Your task to perform on an android device: turn notification dots off Image 0: 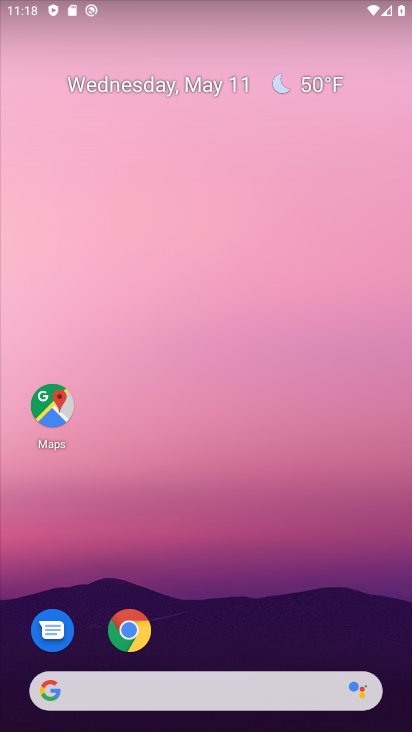
Step 0: drag from (103, 582) to (189, 264)
Your task to perform on an android device: turn notification dots off Image 1: 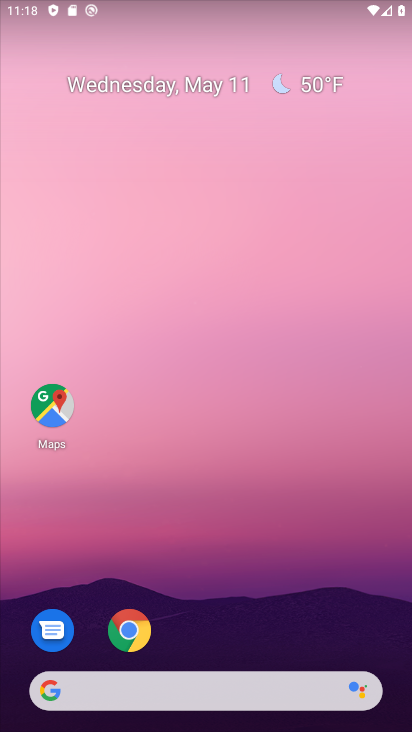
Step 1: drag from (199, 523) to (250, 220)
Your task to perform on an android device: turn notification dots off Image 2: 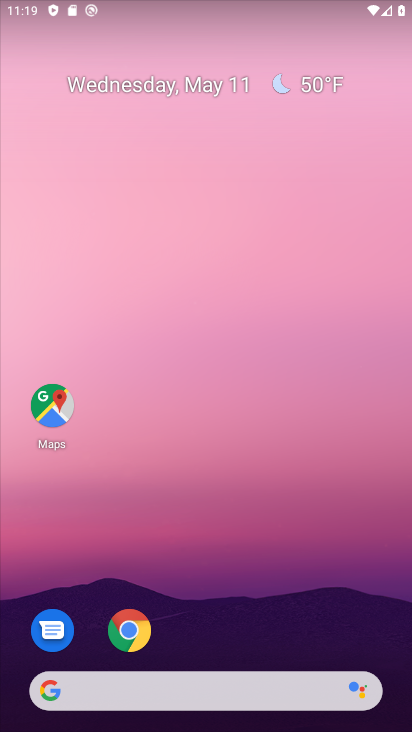
Step 2: drag from (239, 364) to (239, 324)
Your task to perform on an android device: turn notification dots off Image 3: 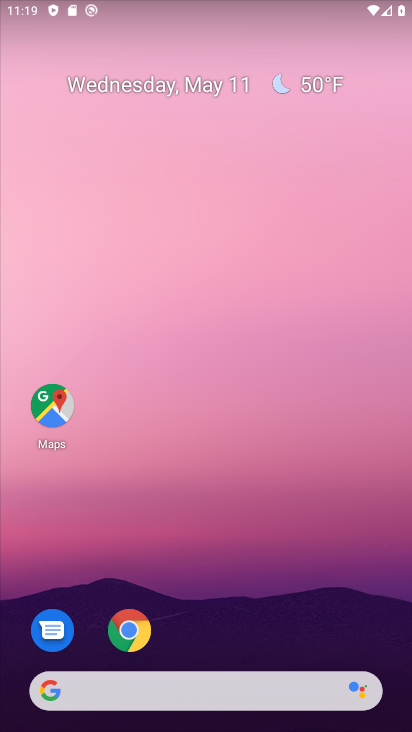
Step 3: drag from (226, 603) to (251, 242)
Your task to perform on an android device: turn notification dots off Image 4: 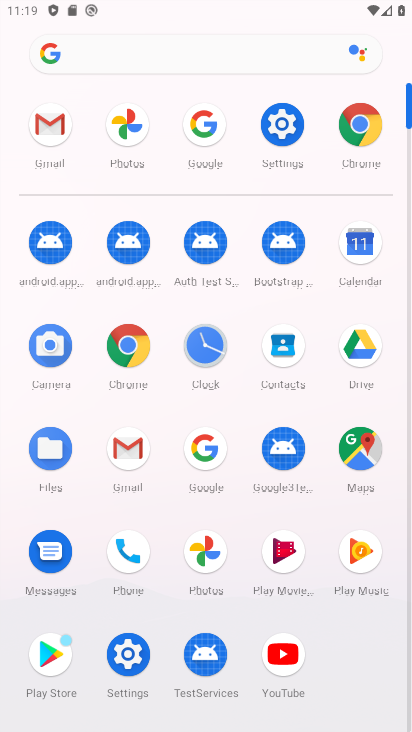
Step 4: click (288, 134)
Your task to perform on an android device: turn notification dots off Image 5: 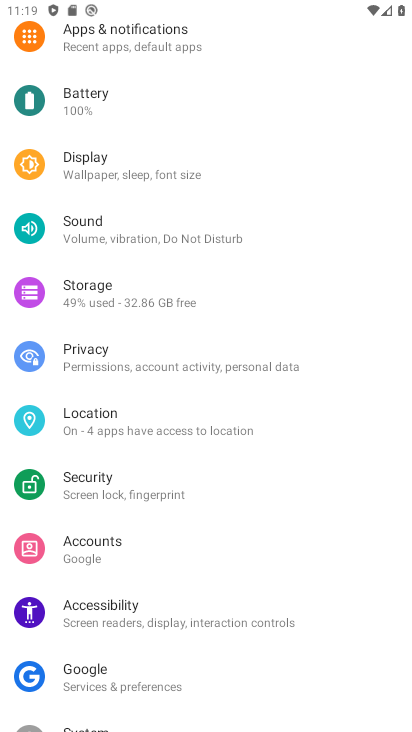
Step 5: drag from (144, 637) to (161, 708)
Your task to perform on an android device: turn notification dots off Image 6: 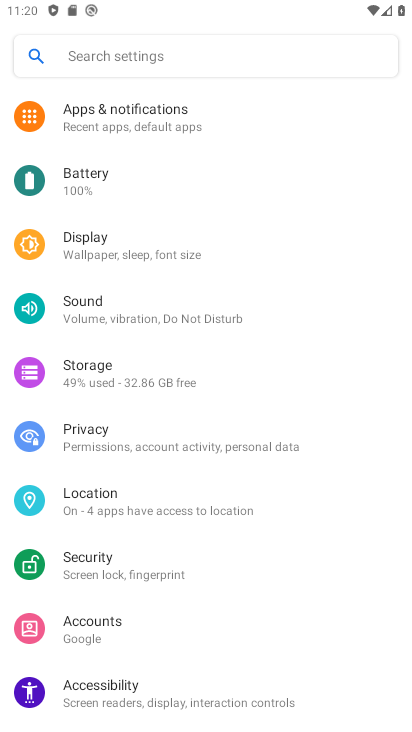
Step 6: click (168, 118)
Your task to perform on an android device: turn notification dots off Image 7: 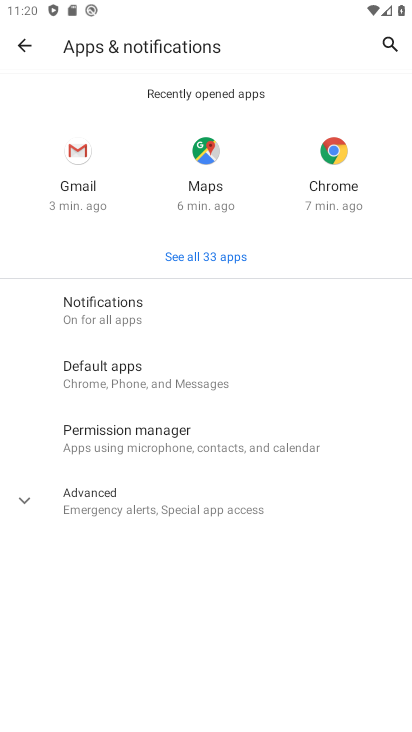
Step 7: click (158, 310)
Your task to perform on an android device: turn notification dots off Image 8: 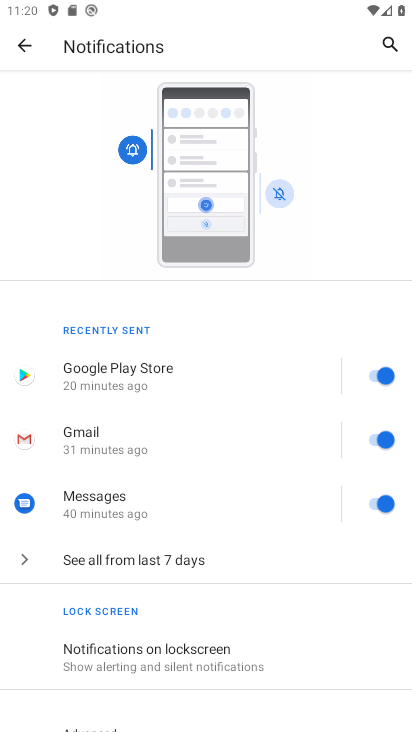
Step 8: drag from (220, 614) to (237, 264)
Your task to perform on an android device: turn notification dots off Image 9: 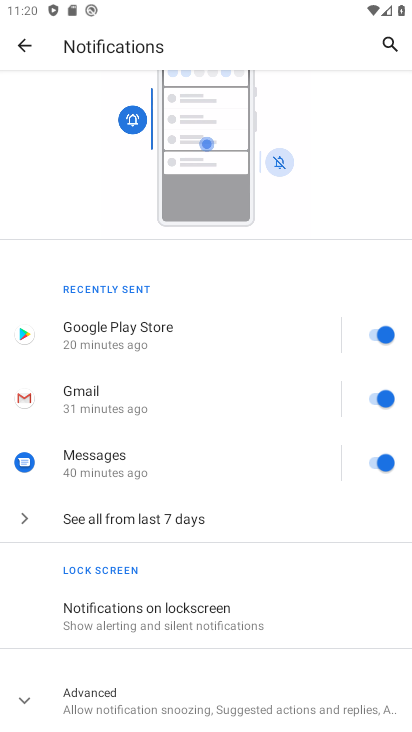
Step 9: click (16, 711)
Your task to perform on an android device: turn notification dots off Image 10: 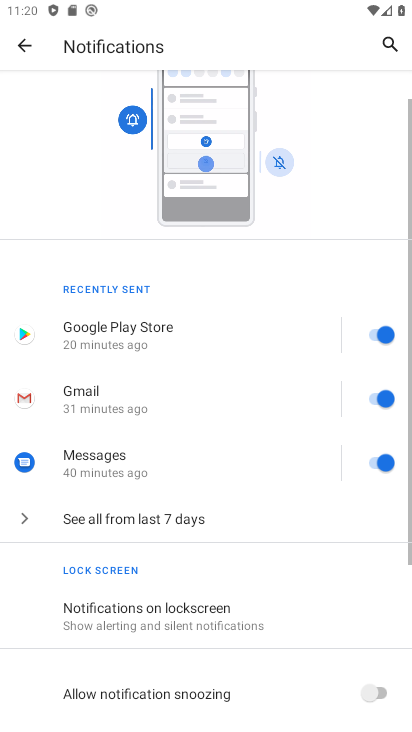
Step 10: task complete